Your task to perform on an android device: Search for sushi restaurants on Maps Image 0: 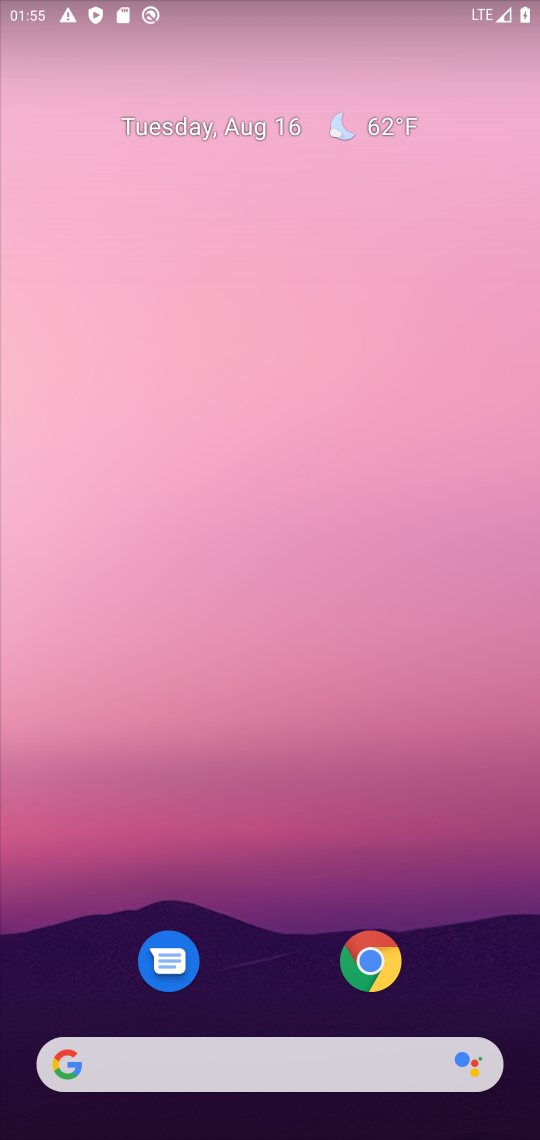
Step 0: press home button
Your task to perform on an android device: Search for sushi restaurants on Maps Image 1: 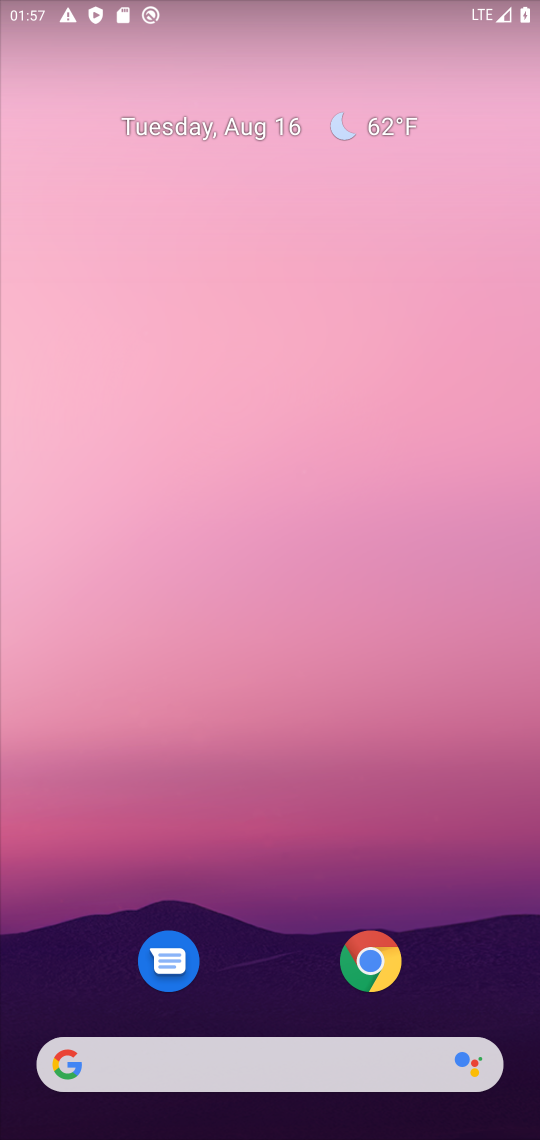
Step 1: drag from (305, 991) to (297, 527)
Your task to perform on an android device: Search for sushi restaurants on Maps Image 2: 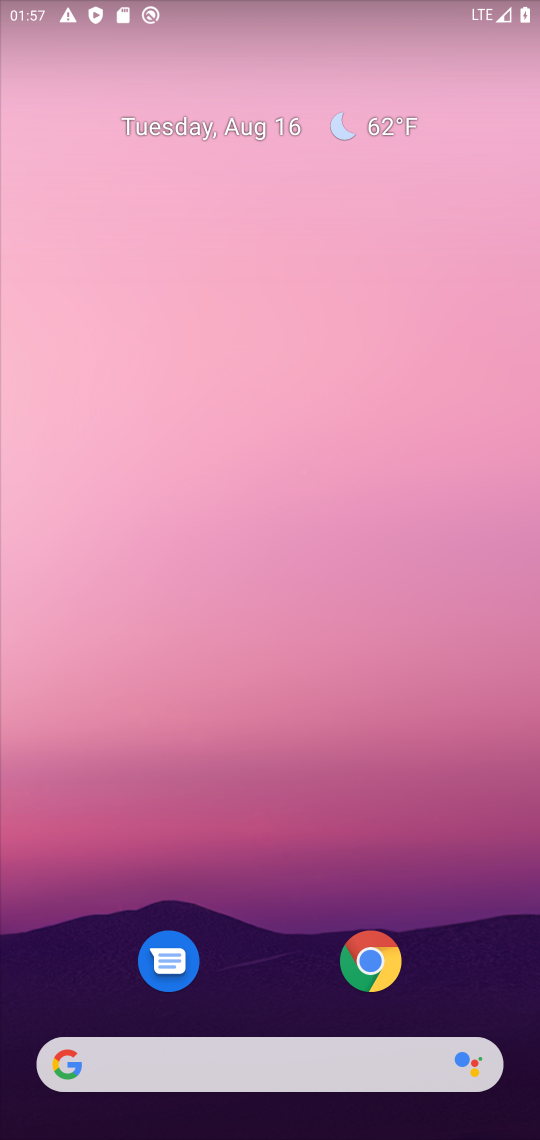
Step 2: drag from (239, 558) to (237, 214)
Your task to perform on an android device: Search for sushi restaurants on Maps Image 3: 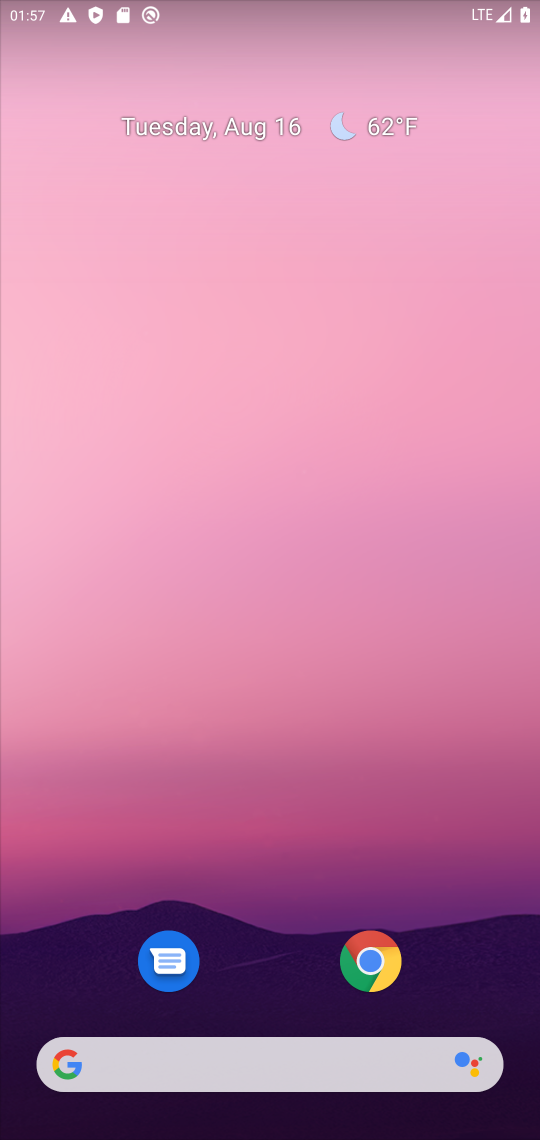
Step 3: drag from (304, 816) to (311, 63)
Your task to perform on an android device: Search for sushi restaurants on Maps Image 4: 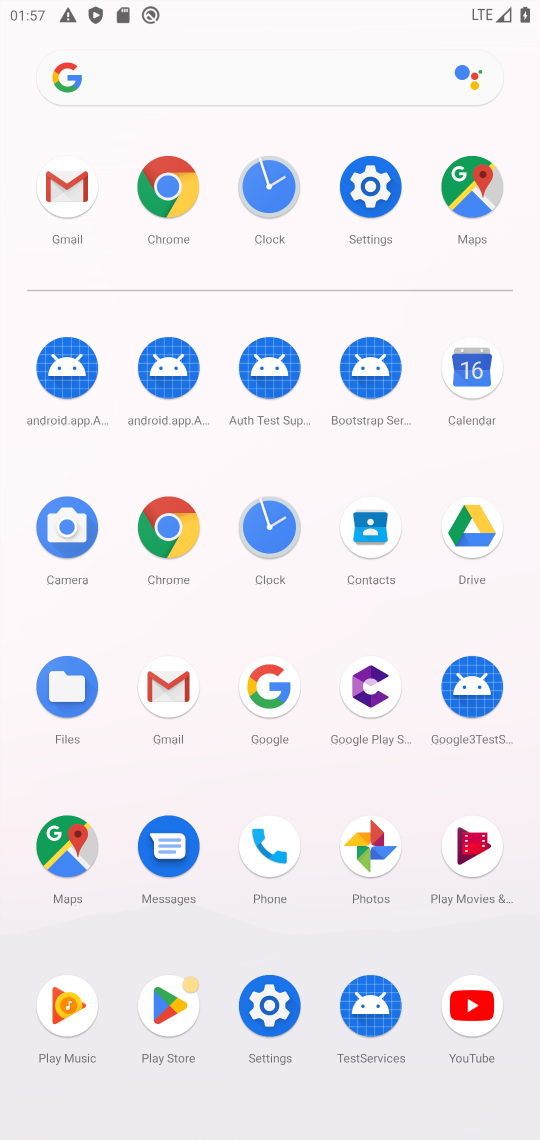
Step 4: click (53, 877)
Your task to perform on an android device: Search for sushi restaurants on Maps Image 5: 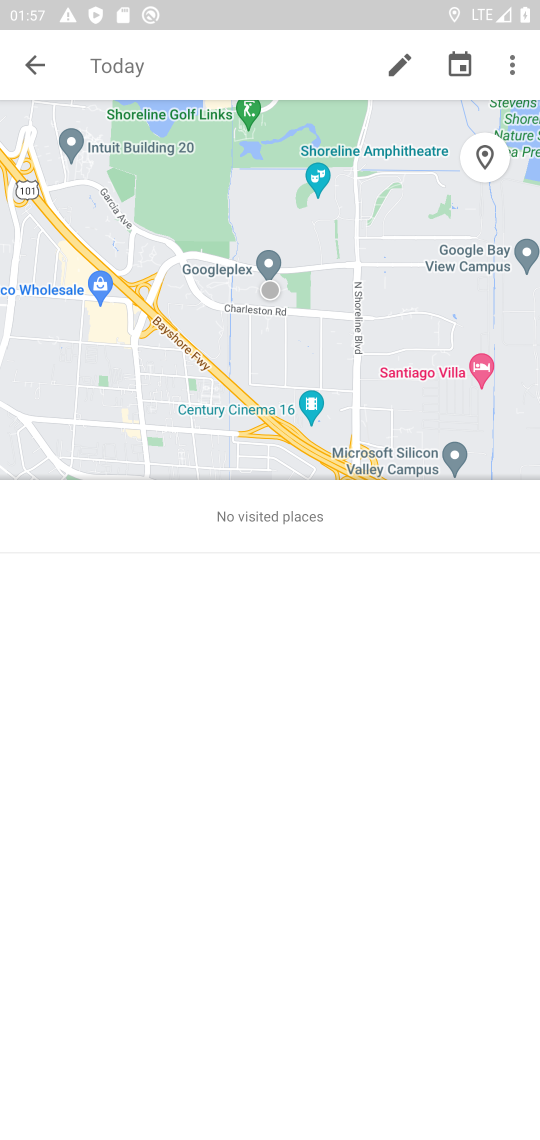
Step 5: click (33, 62)
Your task to perform on an android device: Search for sushi restaurants on Maps Image 6: 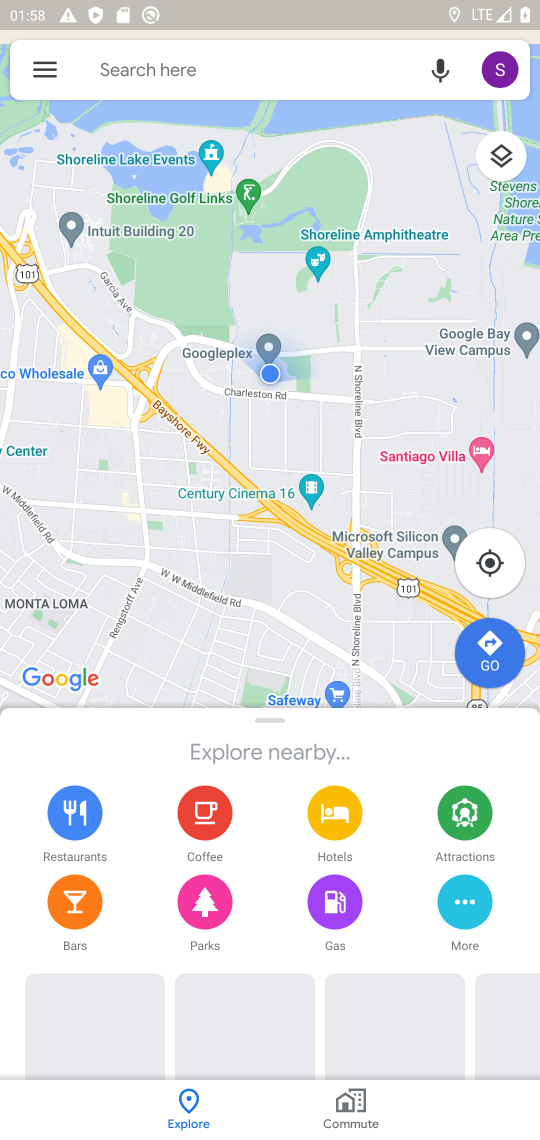
Step 6: click (132, 63)
Your task to perform on an android device: Search for sushi restaurants on Maps Image 7: 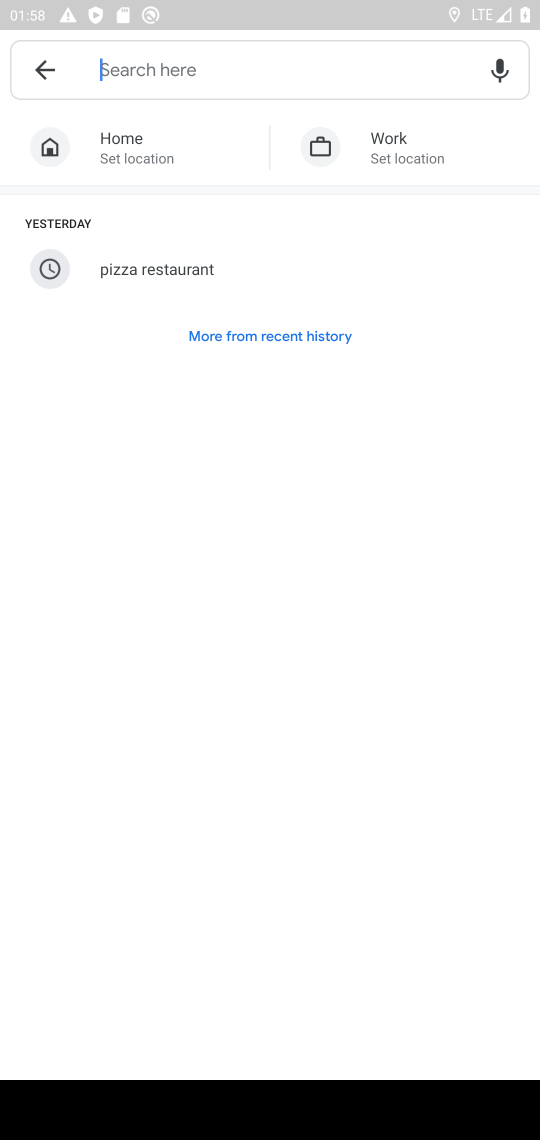
Step 7: type "sushi restaurants"
Your task to perform on an android device: Search for sushi restaurants on Maps Image 8: 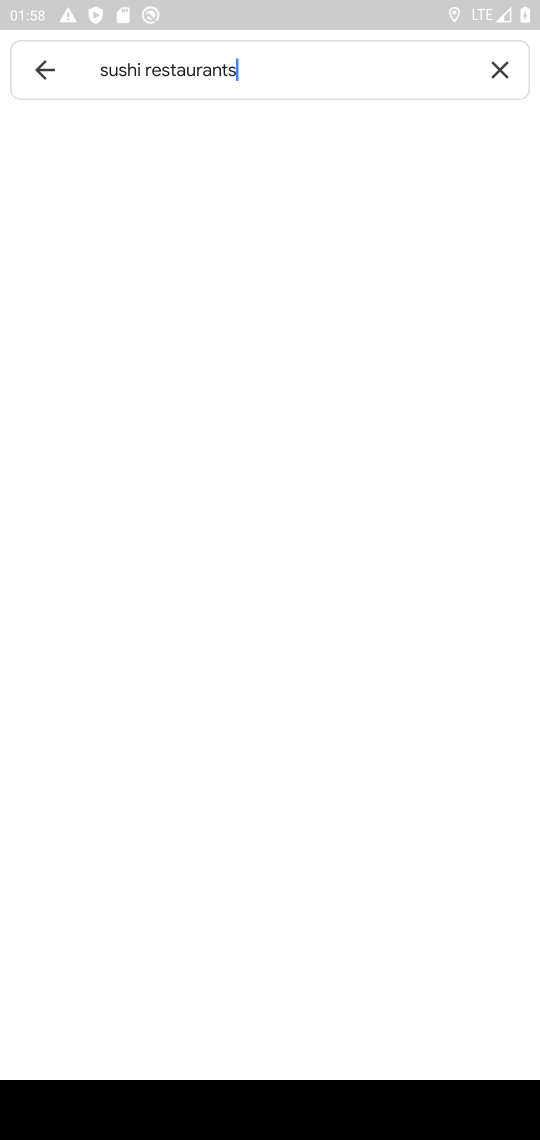
Step 8: type ""
Your task to perform on an android device: Search for sushi restaurants on Maps Image 9: 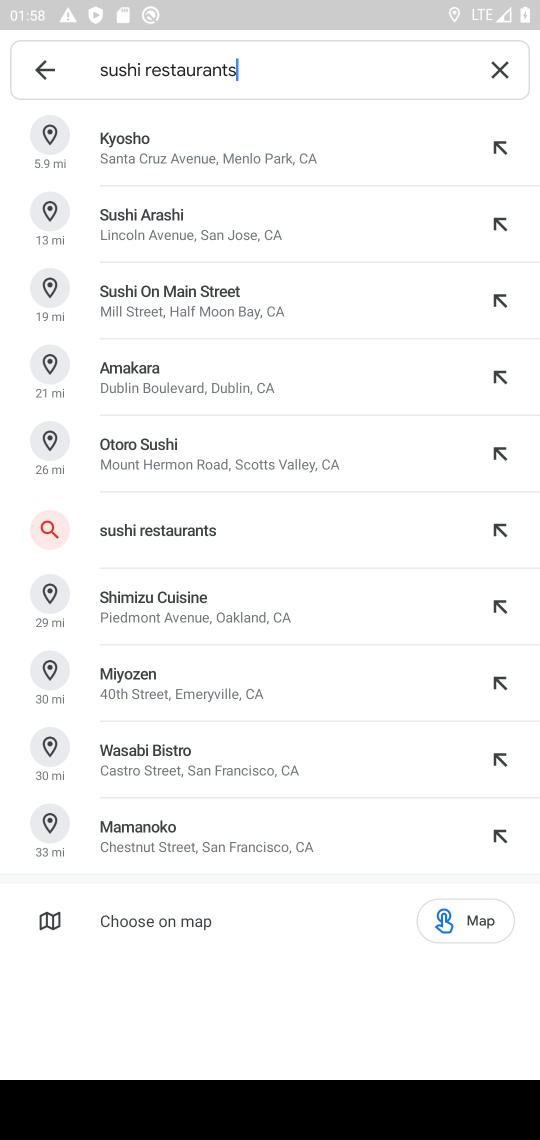
Step 9: click (142, 537)
Your task to perform on an android device: Search for sushi restaurants on Maps Image 10: 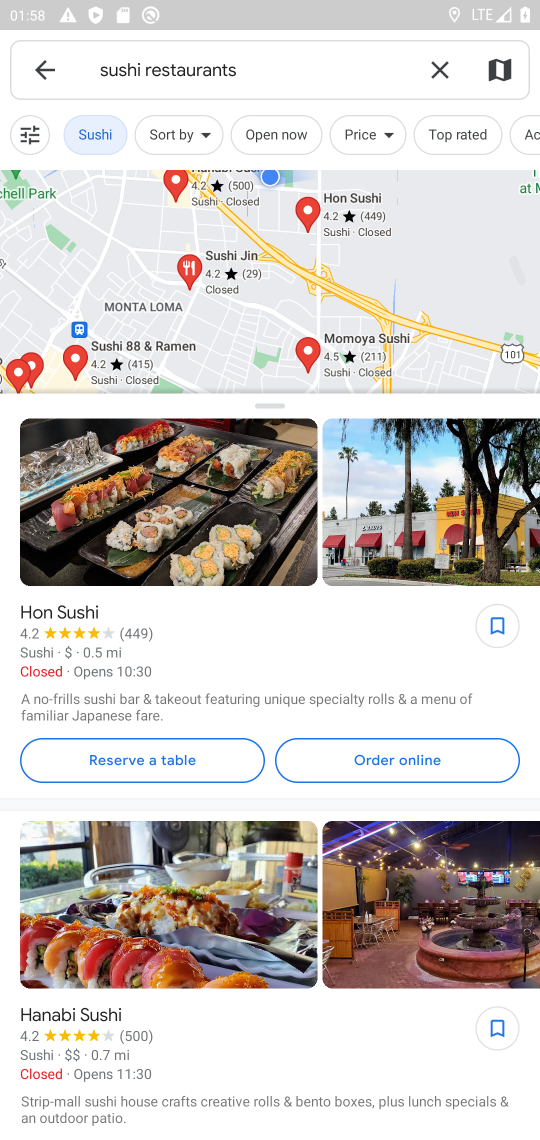
Step 10: task complete